Your task to perform on an android device: turn on wifi Image 0: 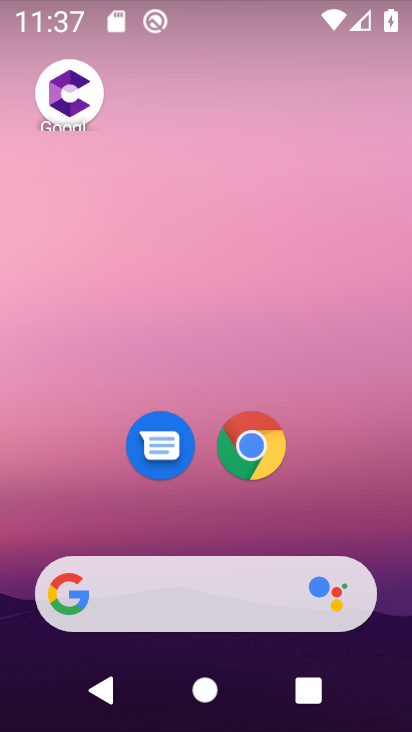
Step 0: drag from (225, 7) to (279, 473)
Your task to perform on an android device: turn on wifi Image 1: 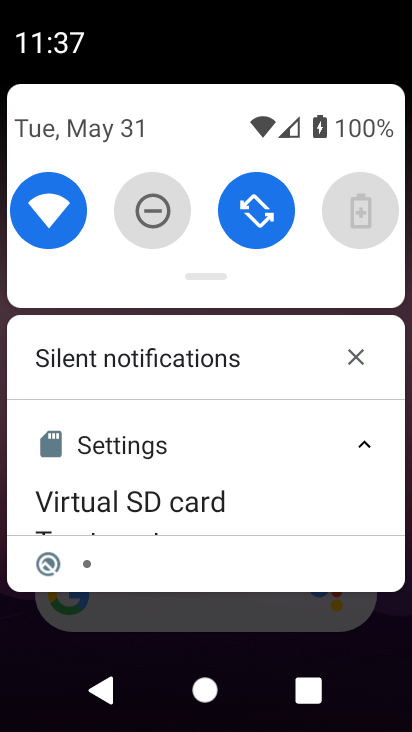
Step 1: task complete